Your task to perform on an android device: open chrome and create a bookmark for the current page Image 0: 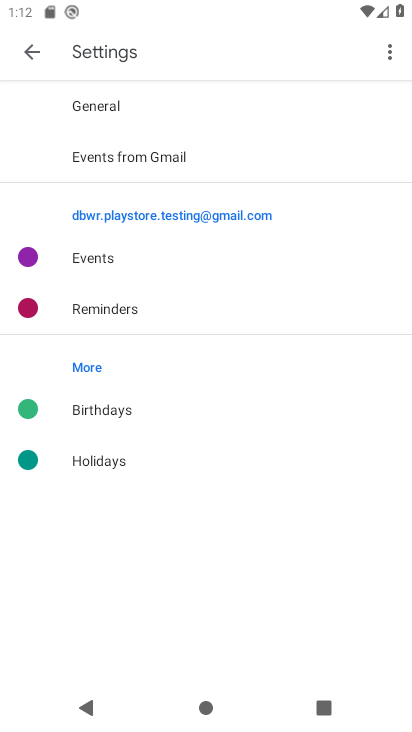
Step 0: press home button
Your task to perform on an android device: open chrome and create a bookmark for the current page Image 1: 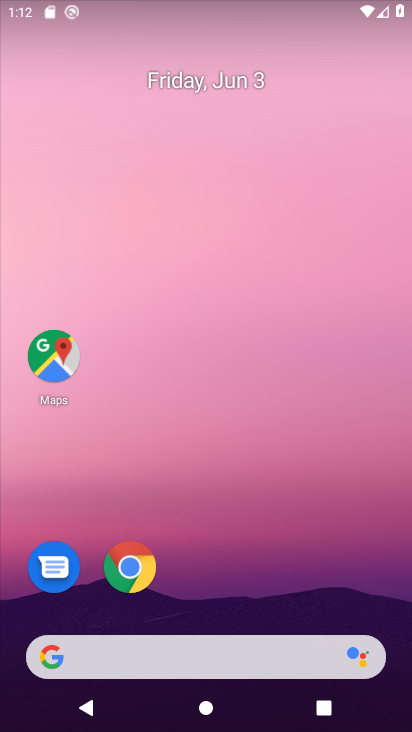
Step 1: click (131, 565)
Your task to perform on an android device: open chrome and create a bookmark for the current page Image 2: 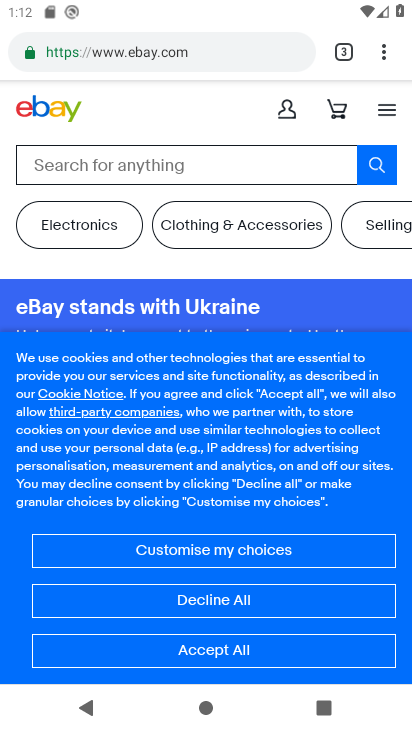
Step 2: click (370, 56)
Your task to perform on an android device: open chrome and create a bookmark for the current page Image 3: 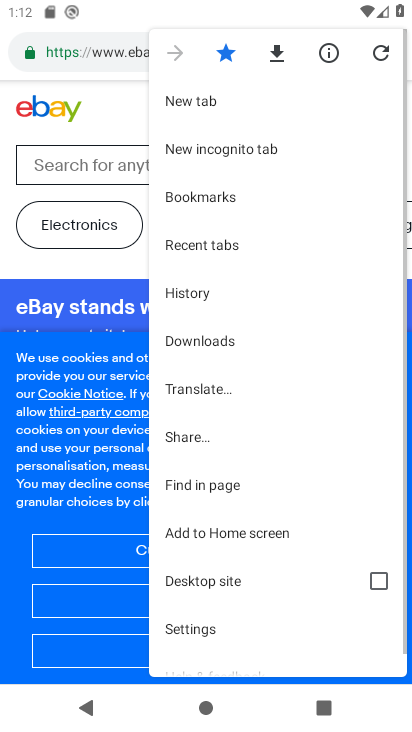
Step 3: click (220, 57)
Your task to perform on an android device: open chrome and create a bookmark for the current page Image 4: 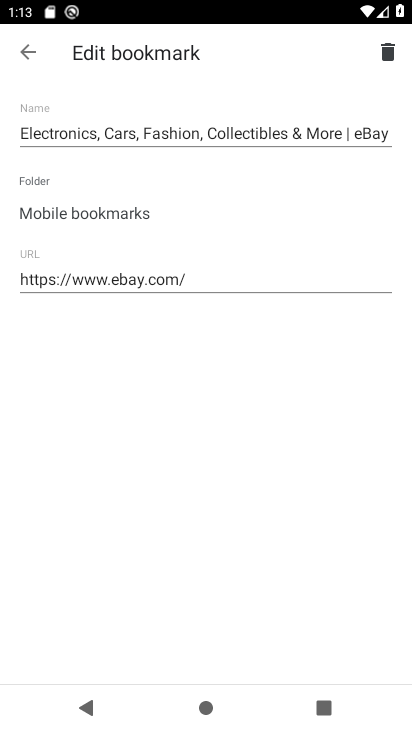
Step 4: click (25, 44)
Your task to perform on an android device: open chrome and create a bookmark for the current page Image 5: 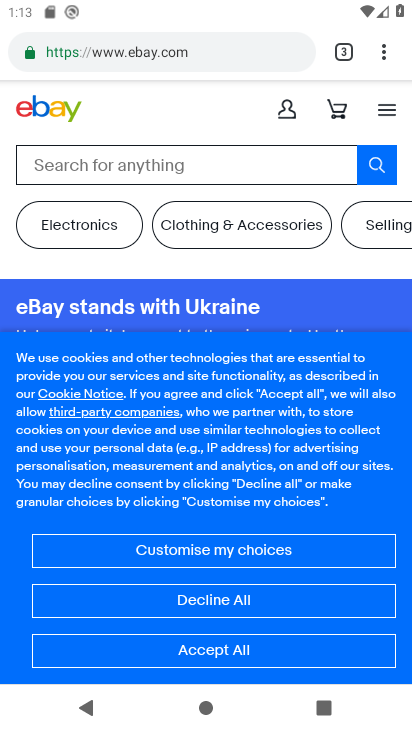
Step 5: task complete